Your task to perform on an android device: What's the weather today? Image 0: 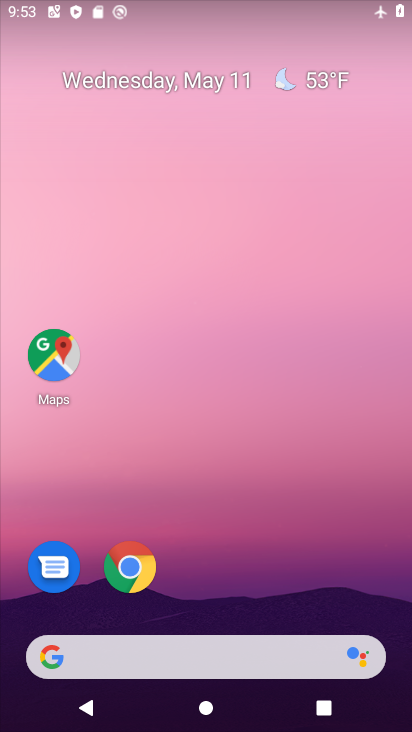
Step 0: click (260, 671)
Your task to perform on an android device: What's the weather today? Image 1: 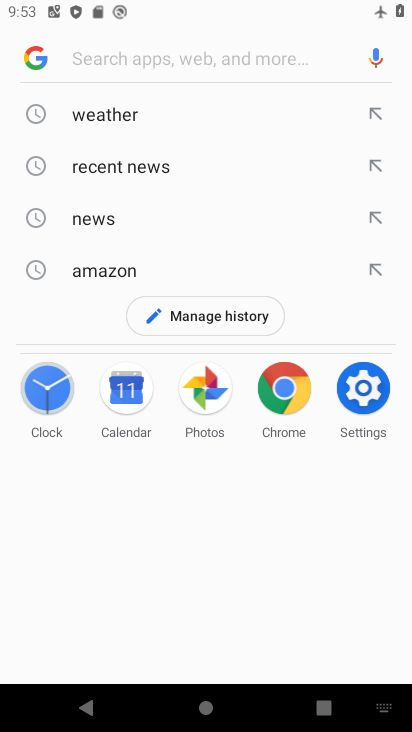
Step 1: type "What's the weather today?"
Your task to perform on an android device: What's the weather today? Image 2: 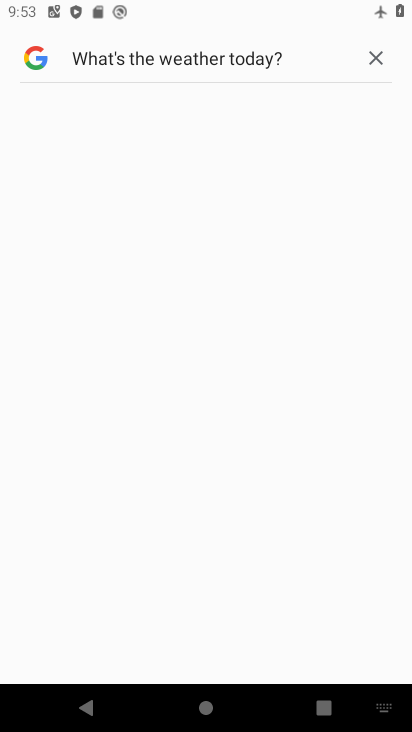
Step 2: task complete